Your task to perform on an android device: toggle show notifications on the lock screen Image 0: 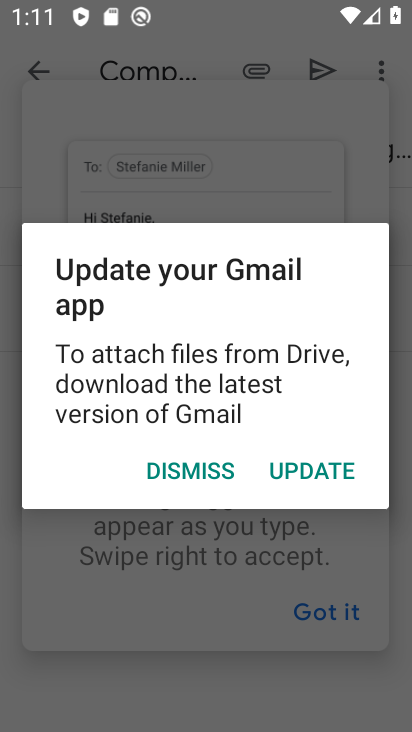
Step 0: press home button
Your task to perform on an android device: toggle show notifications on the lock screen Image 1: 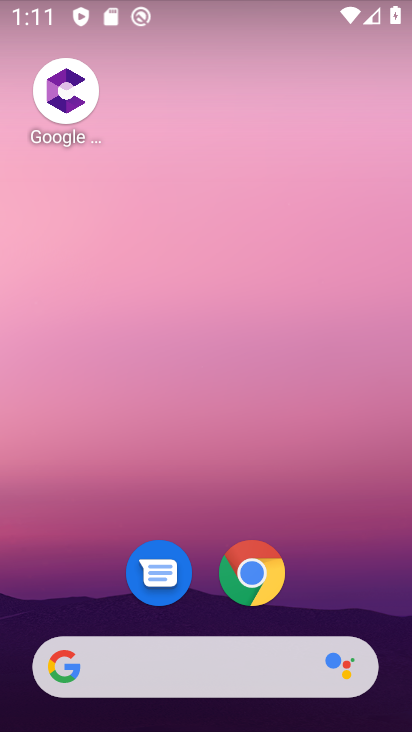
Step 1: drag from (82, 629) to (244, 229)
Your task to perform on an android device: toggle show notifications on the lock screen Image 2: 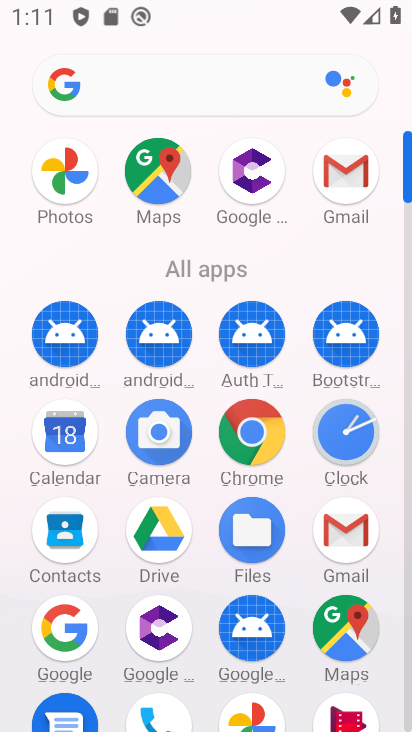
Step 2: drag from (267, 643) to (337, 437)
Your task to perform on an android device: toggle show notifications on the lock screen Image 3: 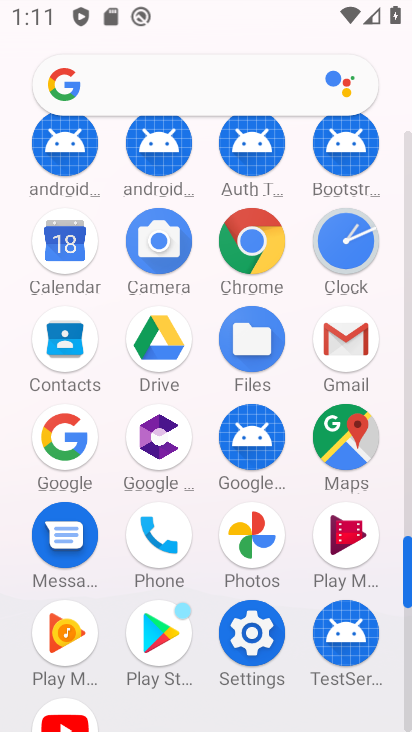
Step 3: click (277, 653)
Your task to perform on an android device: toggle show notifications on the lock screen Image 4: 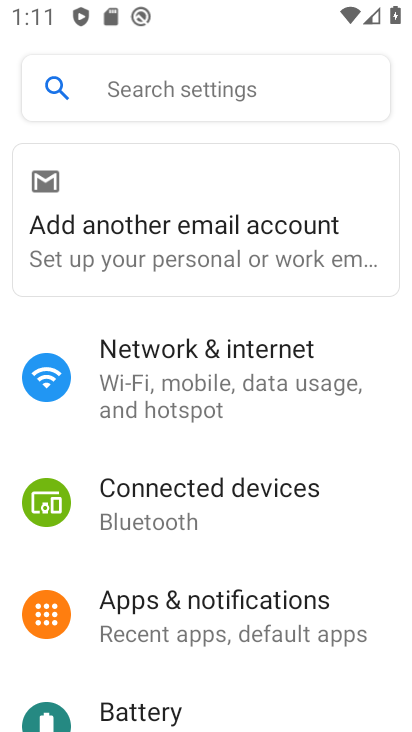
Step 4: click (266, 638)
Your task to perform on an android device: toggle show notifications on the lock screen Image 5: 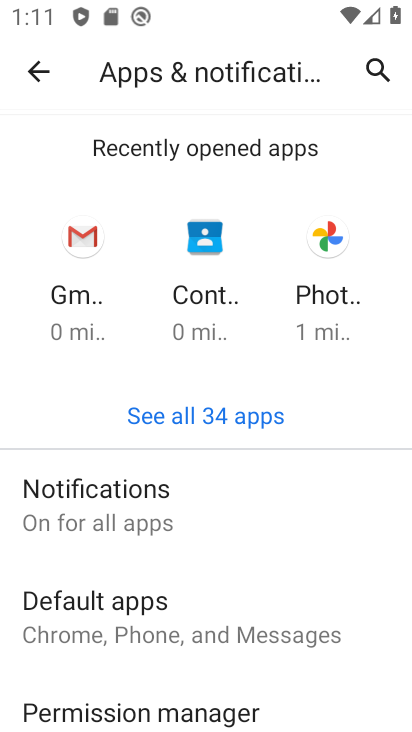
Step 5: click (261, 518)
Your task to perform on an android device: toggle show notifications on the lock screen Image 6: 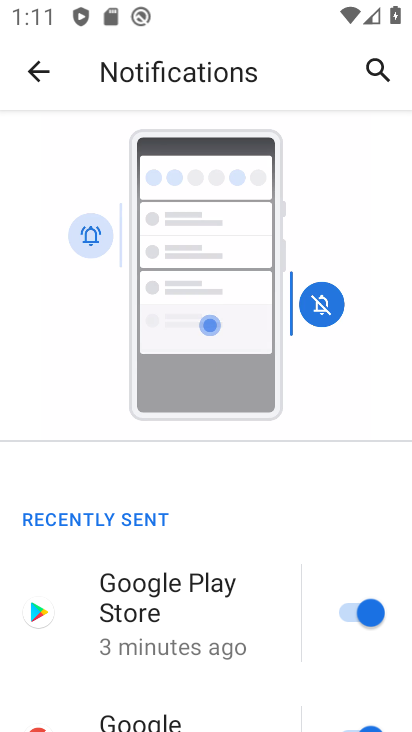
Step 6: drag from (216, 663) to (391, 186)
Your task to perform on an android device: toggle show notifications on the lock screen Image 7: 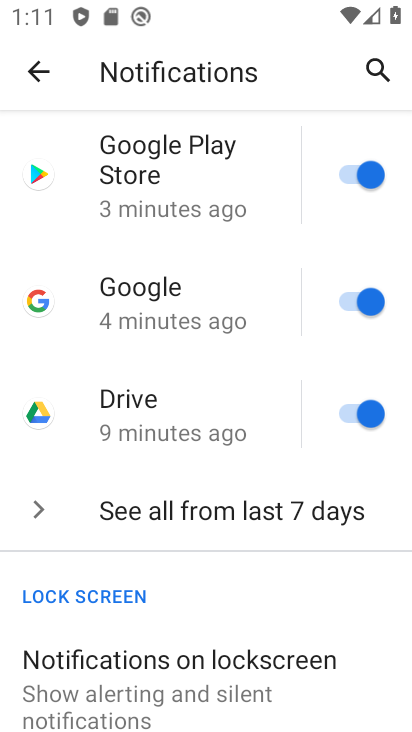
Step 7: drag from (201, 667) to (242, 478)
Your task to perform on an android device: toggle show notifications on the lock screen Image 8: 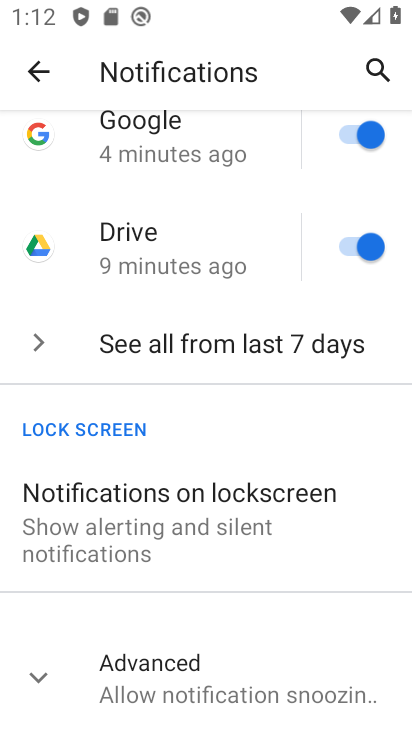
Step 8: click (265, 534)
Your task to perform on an android device: toggle show notifications on the lock screen Image 9: 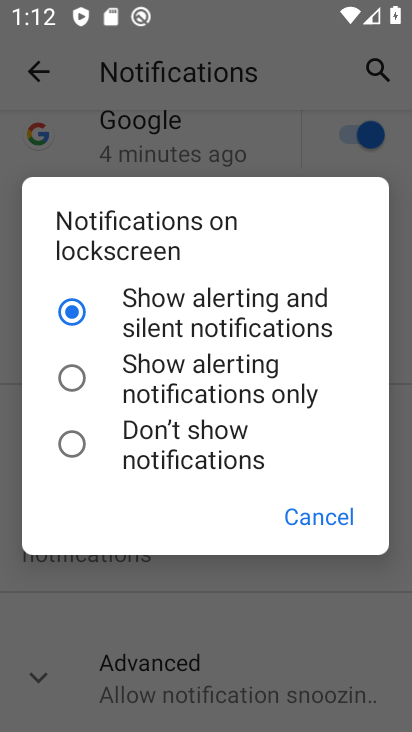
Step 9: click (198, 460)
Your task to perform on an android device: toggle show notifications on the lock screen Image 10: 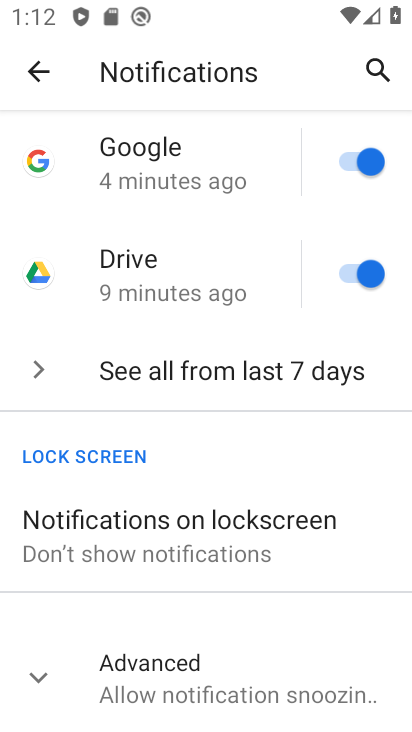
Step 10: task complete